Your task to perform on an android device: Search for "razer deathadder" on target, select the first entry, and add it to the cart. Image 0: 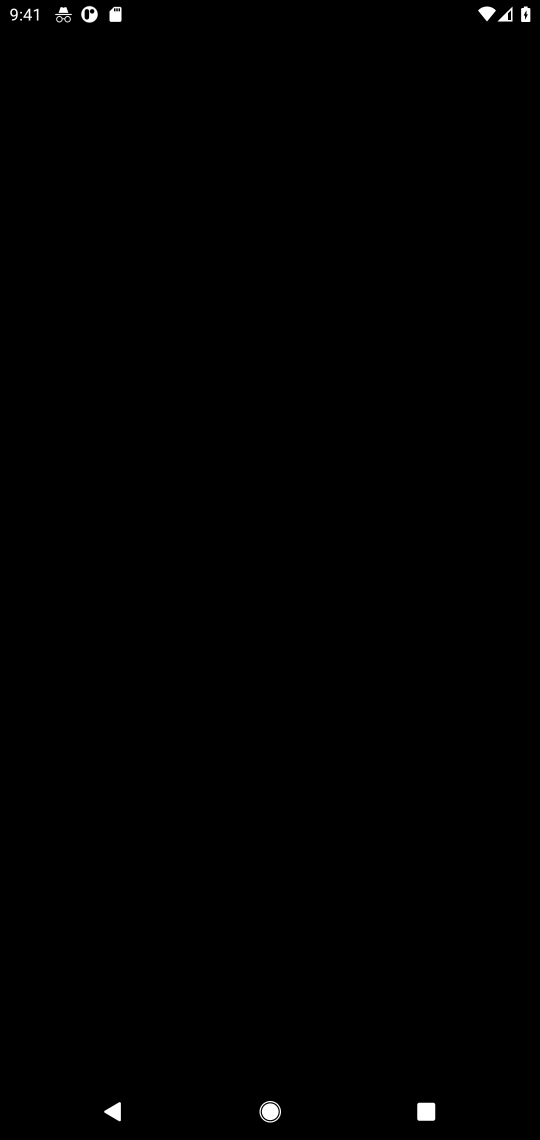
Step 0: press home button
Your task to perform on an android device: Search for "razer deathadder" on target, select the first entry, and add it to the cart. Image 1: 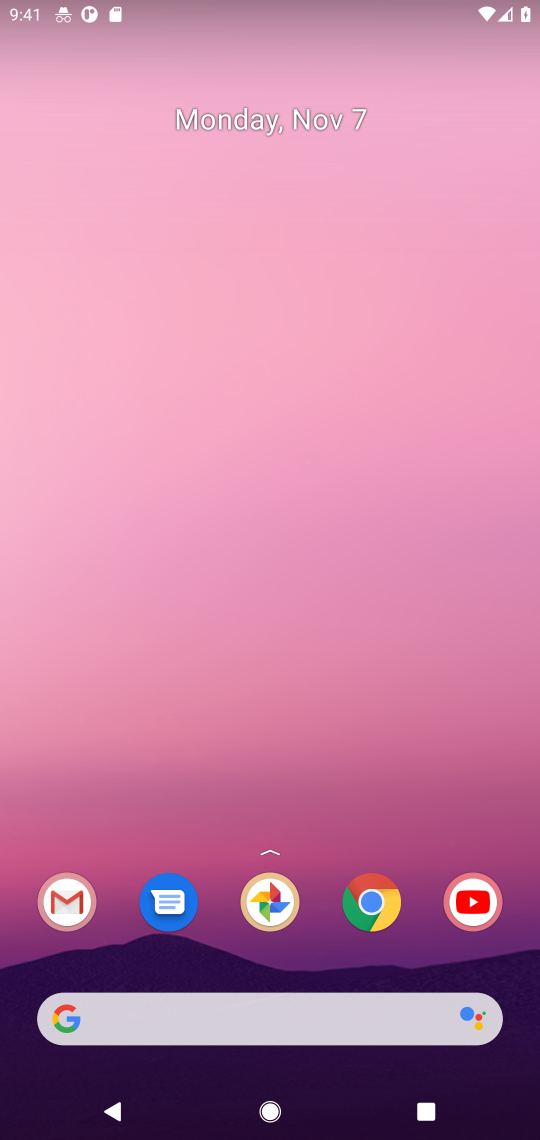
Step 1: click (361, 905)
Your task to perform on an android device: Search for "razer deathadder" on target, select the first entry, and add it to the cart. Image 2: 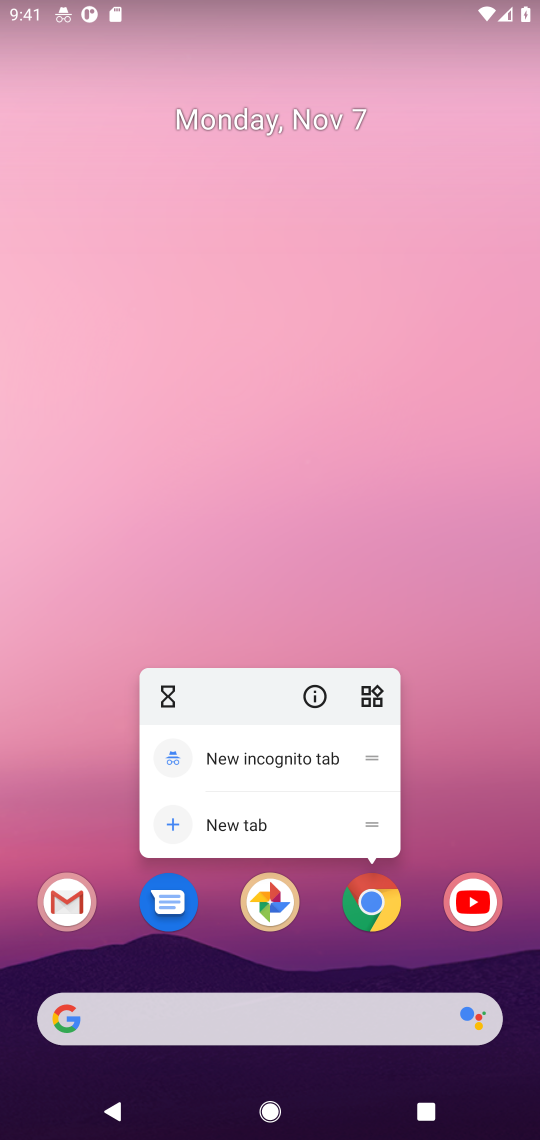
Step 2: click (379, 905)
Your task to perform on an android device: Search for "razer deathadder" on target, select the first entry, and add it to the cart. Image 3: 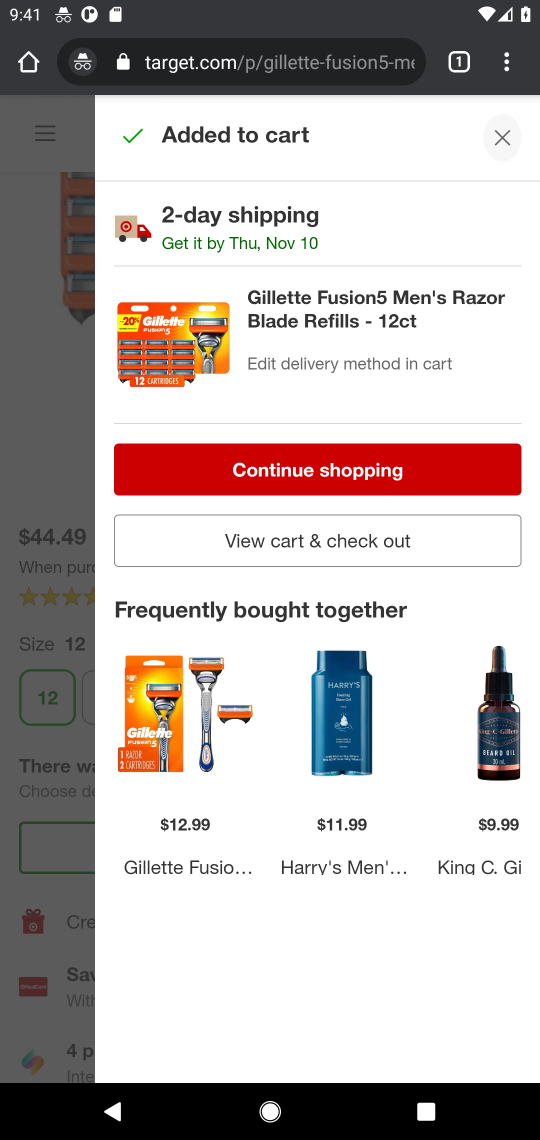
Step 3: click (511, 139)
Your task to perform on an android device: Search for "razer deathadder" on target, select the first entry, and add it to the cart. Image 4: 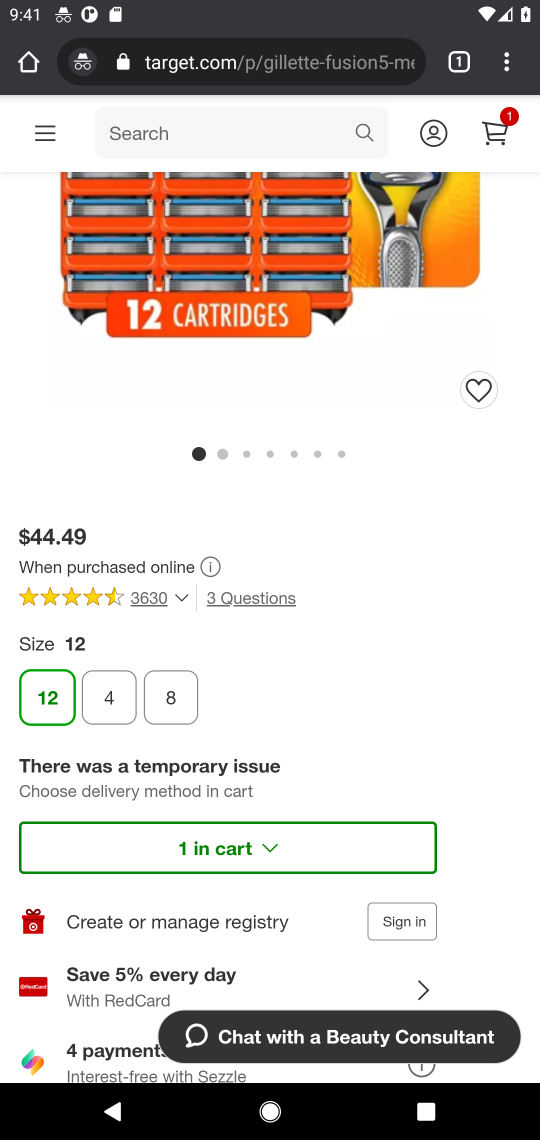
Step 4: click (189, 142)
Your task to perform on an android device: Search for "razer deathadder" on target, select the first entry, and add it to the cart. Image 5: 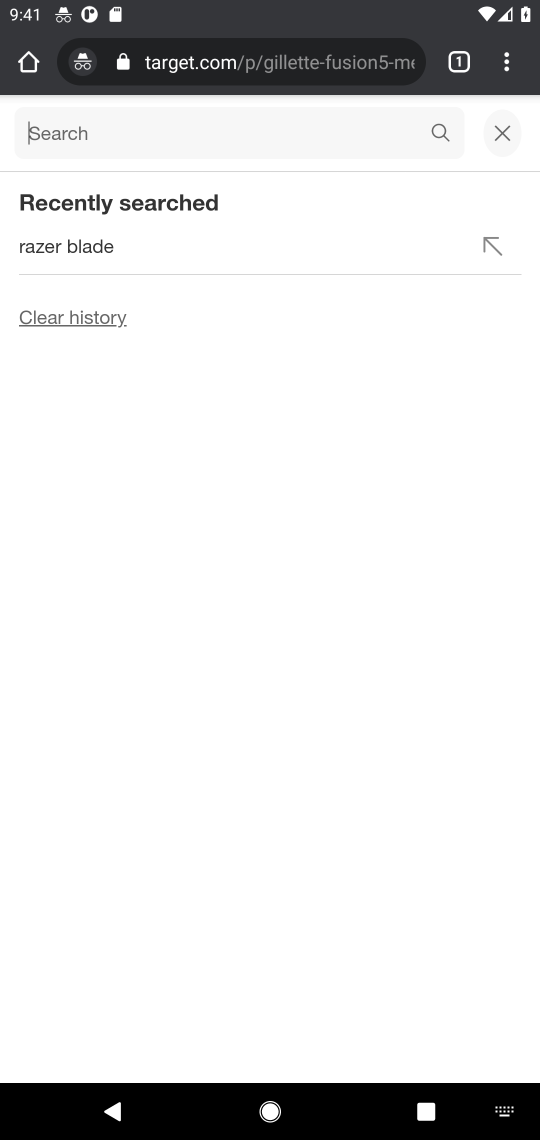
Step 5: type "razer deathadder"
Your task to perform on an android device: Search for "razer deathadder" on target, select the first entry, and add it to the cart. Image 6: 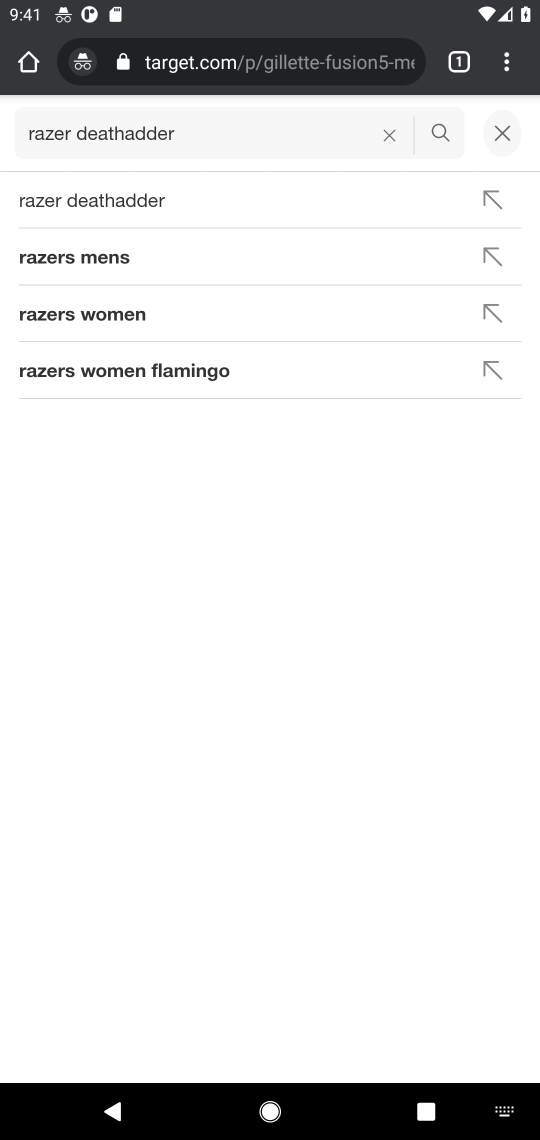
Step 6: click (121, 195)
Your task to perform on an android device: Search for "razer deathadder" on target, select the first entry, and add it to the cart. Image 7: 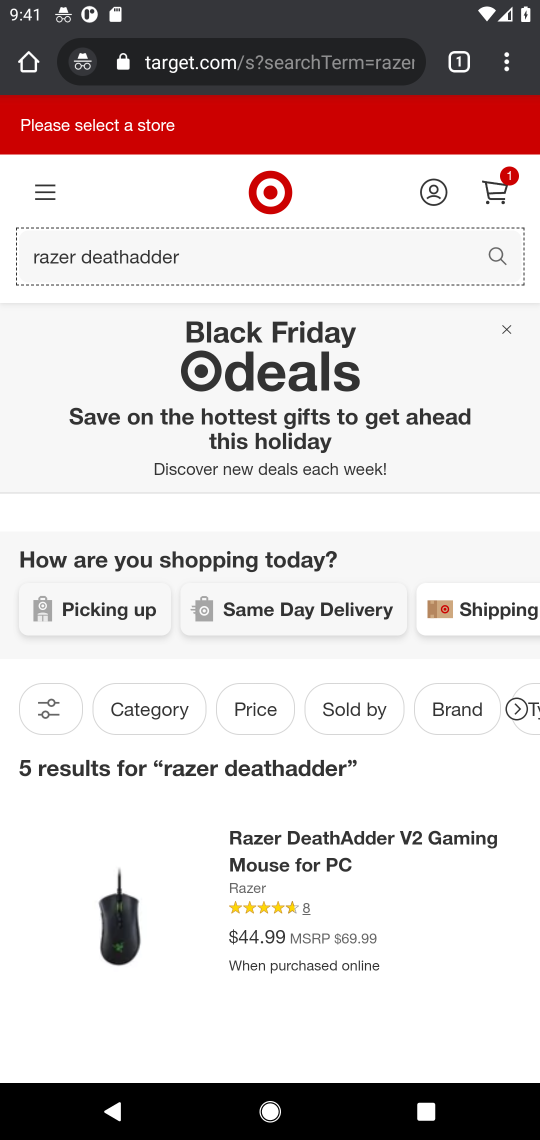
Step 7: click (121, 946)
Your task to perform on an android device: Search for "razer deathadder" on target, select the first entry, and add it to the cart. Image 8: 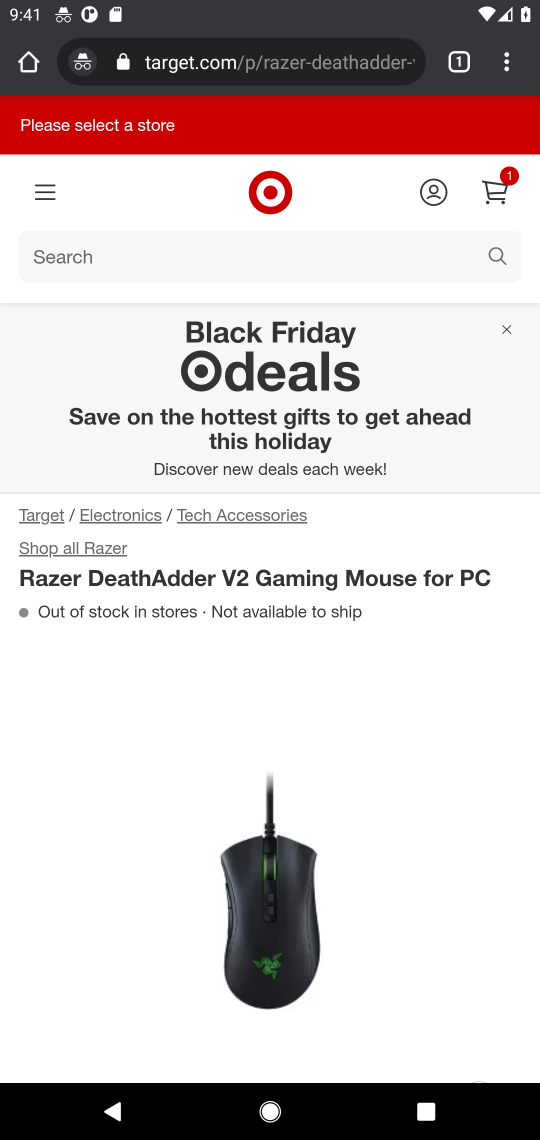
Step 8: drag from (190, 936) to (175, 471)
Your task to perform on an android device: Search for "razer deathadder" on target, select the first entry, and add it to the cart. Image 9: 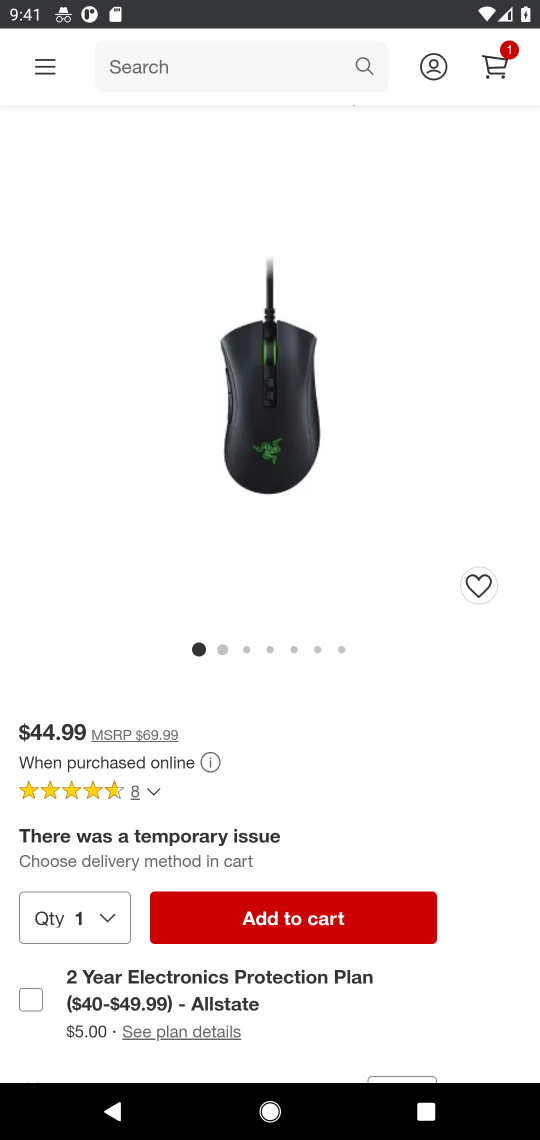
Step 9: click (264, 914)
Your task to perform on an android device: Search for "razer deathadder" on target, select the first entry, and add it to the cart. Image 10: 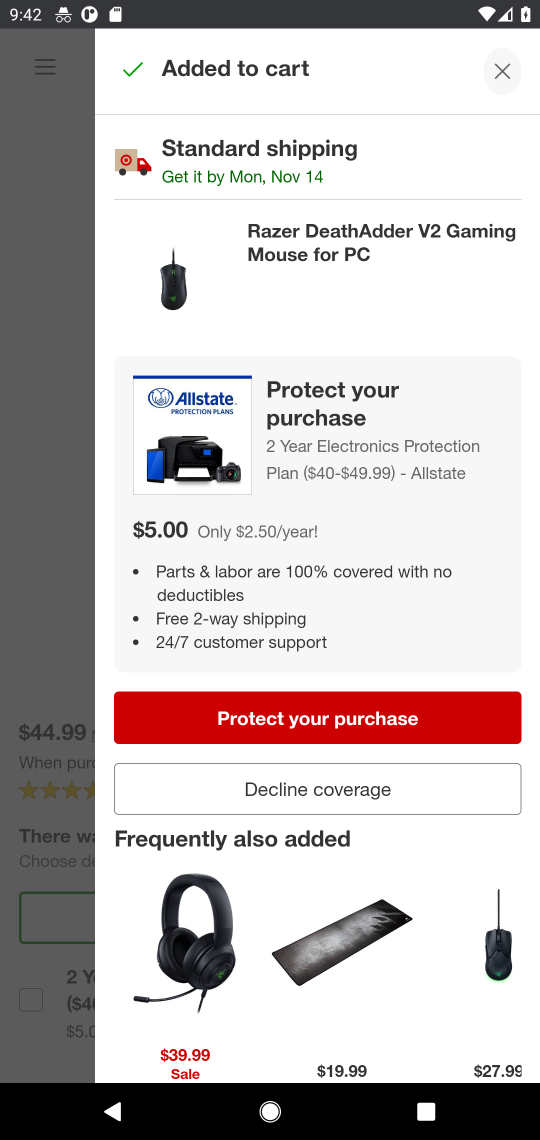
Step 10: task complete